Your task to perform on an android device: turn off improve location accuracy Image 0: 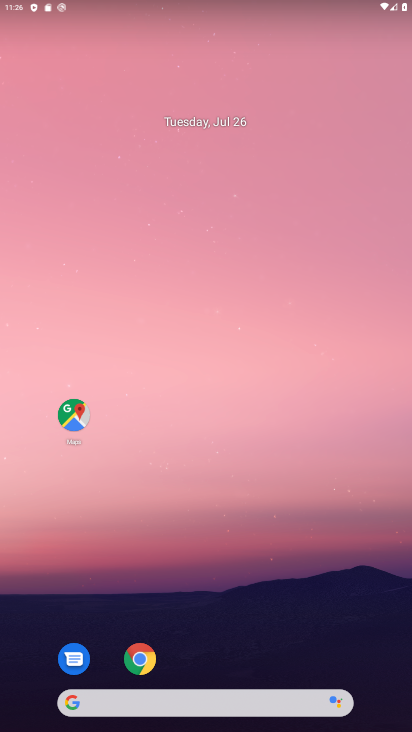
Step 0: drag from (229, 642) to (230, 175)
Your task to perform on an android device: turn off improve location accuracy Image 1: 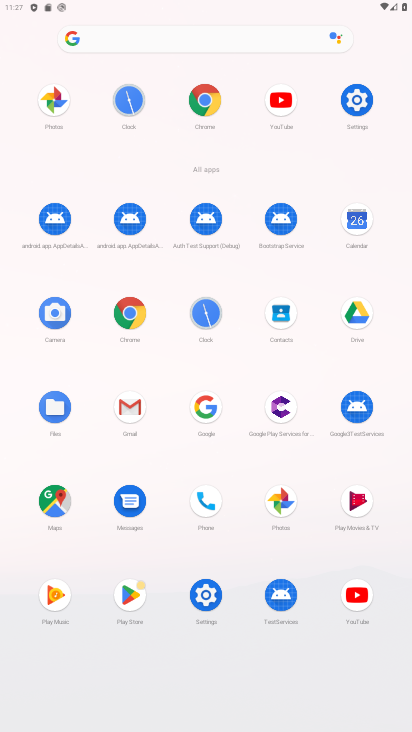
Step 1: click (360, 103)
Your task to perform on an android device: turn off improve location accuracy Image 2: 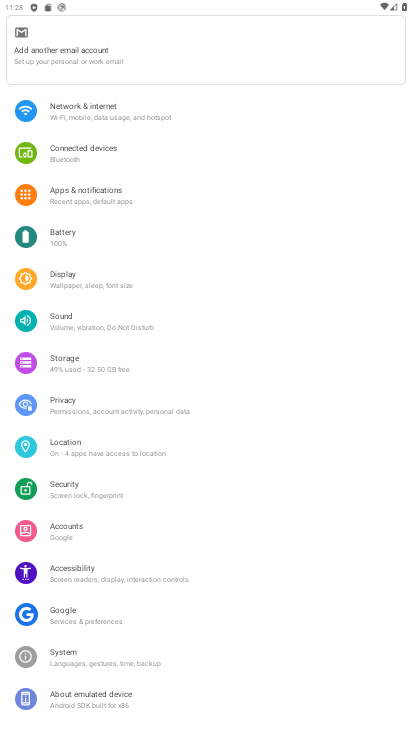
Step 2: click (98, 452)
Your task to perform on an android device: turn off improve location accuracy Image 3: 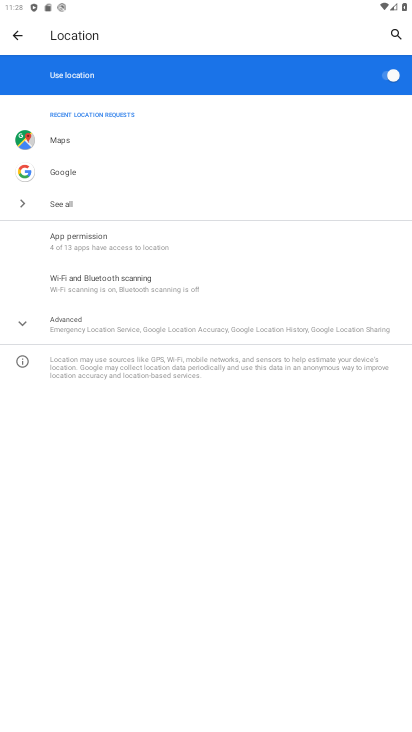
Step 3: click (162, 324)
Your task to perform on an android device: turn off improve location accuracy Image 4: 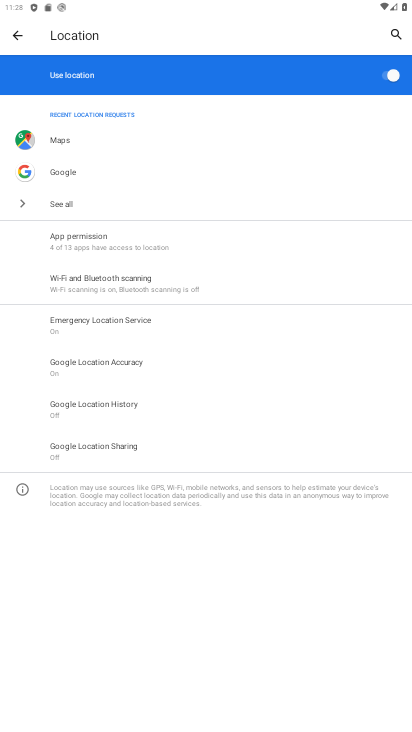
Step 4: click (127, 373)
Your task to perform on an android device: turn off improve location accuracy Image 5: 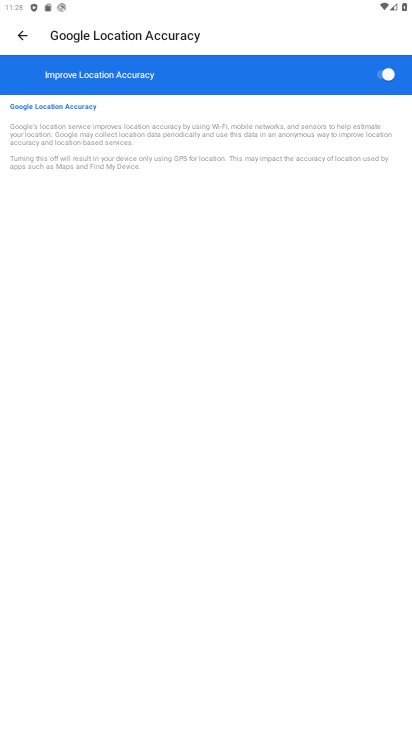
Step 5: click (335, 80)
Your task to perform on an android device: turn off improve location accuracy Image 6: 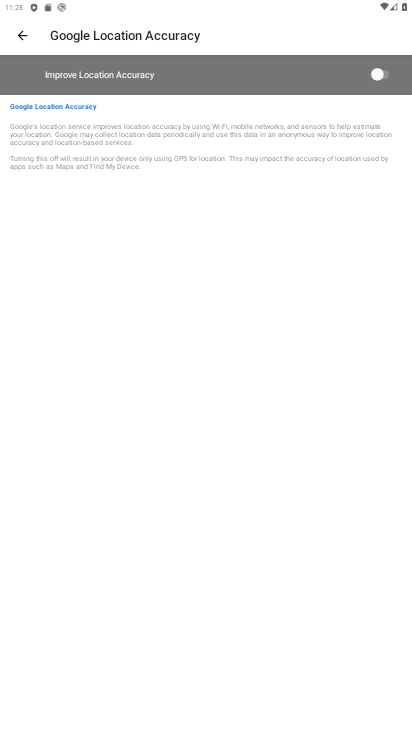
Step 6: task complete